Your task to perform on an android device: open wifi settings Image 0: 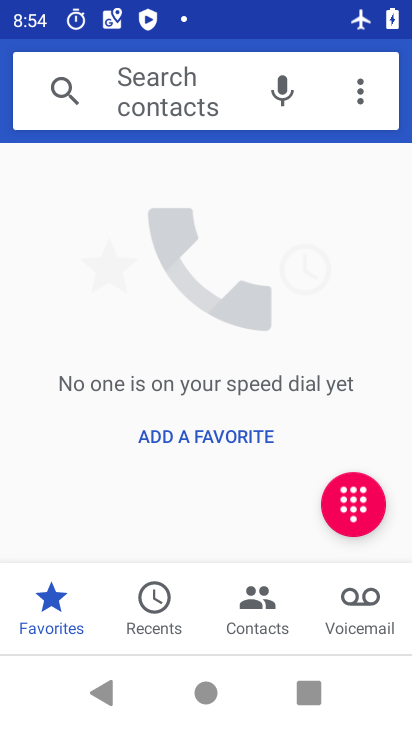
Step 0: press home button
Your task to perform on an android device: open wifi settings Image 1: 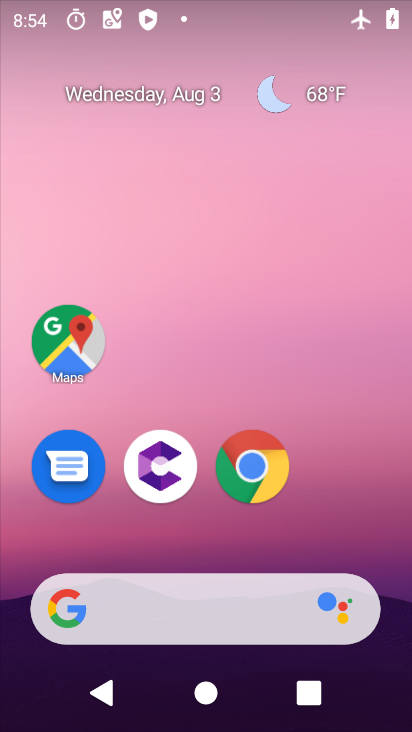
Step 1: drag from (329, 469) to (316, 49)
Your task to perform on an android device: open wifi settings Image 2: 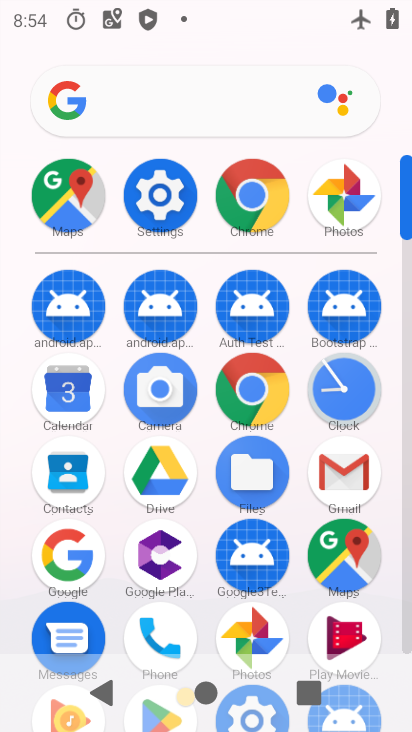
Step 2: click (160, 203)
Your task to perform on an android device: open wifi settings Image 3: 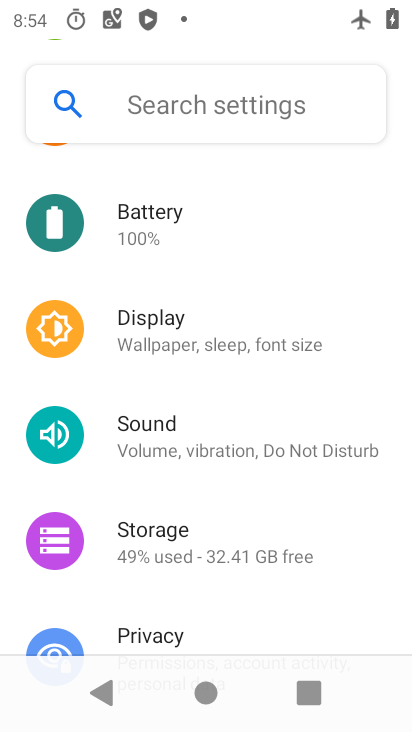
Step 3: drag from (330, 584) to (372, 139)
Your task to perform on an android device: open wifi settings Image 4: 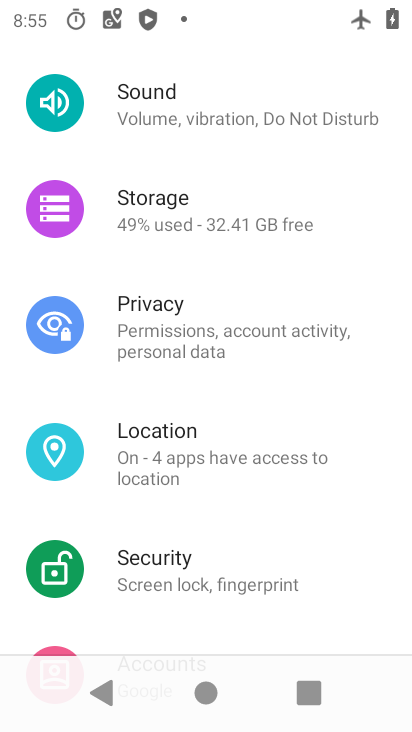
Step 4: drag from (208, 159) to (219, 596)
Your task to perform on an android device: open wifi settings Image 5: 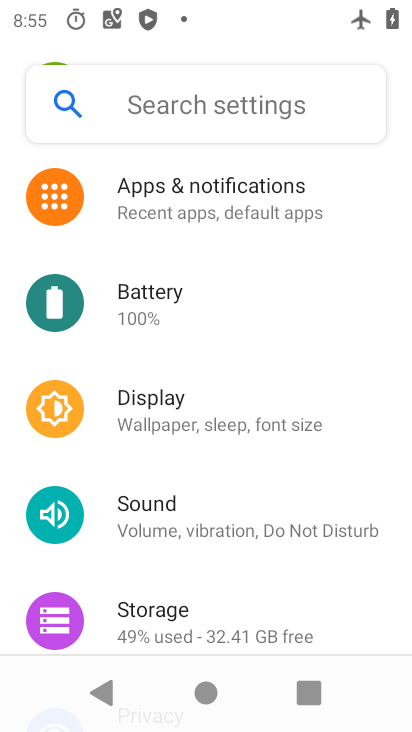
Step 5: drag from (220, 275) to (235, 582)
Your task to perform on an android device: open wifi settings Image 6: 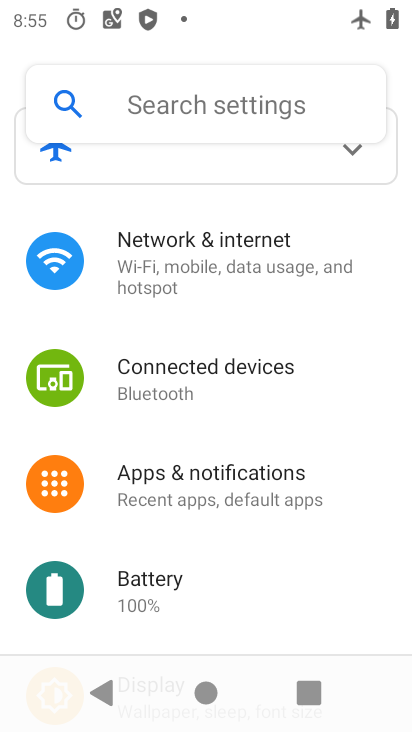
Step 6: click (213, 274)
Your task to perform on an android device: open wifi settings Image 7: 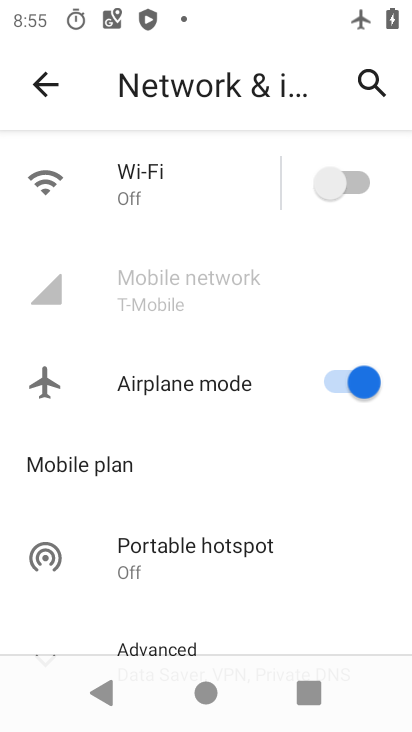
Step 7: click (227, 158)
Your task to perform on an android device: open wifi settings Image 8: 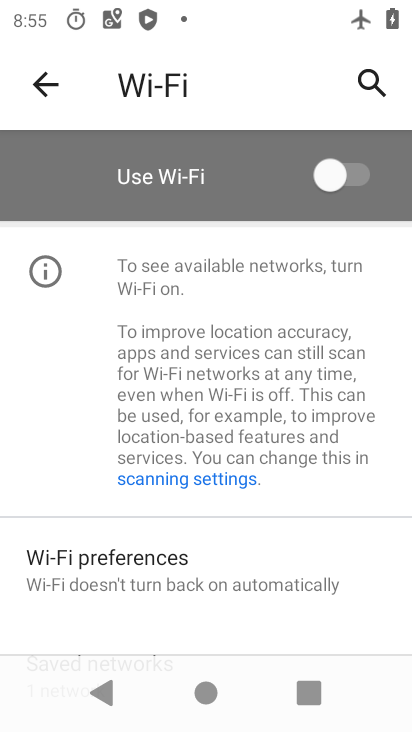
Step 8: click (190, 598)
Your task to perform on an android device: open wifi settings Image 9: 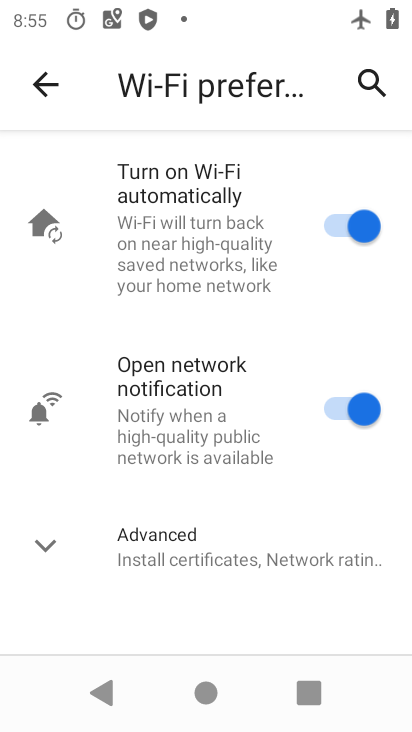
Step 9: task complete